Your task to perform on an android device: Toggle the flashlight Image 0: 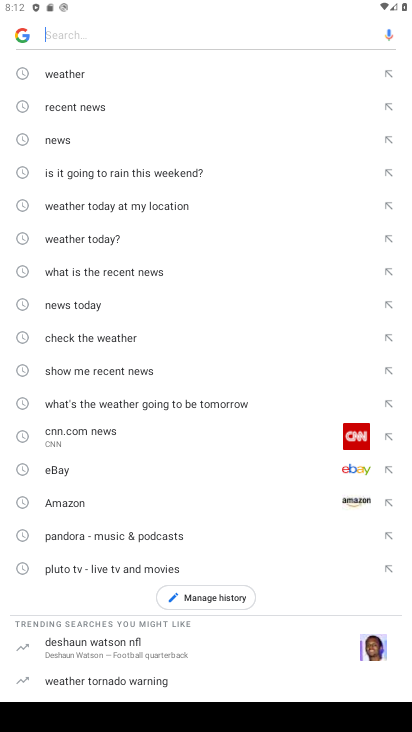
Step 0: press home button
Your task to perform on an android device: Toggle the flashlight Image 1: 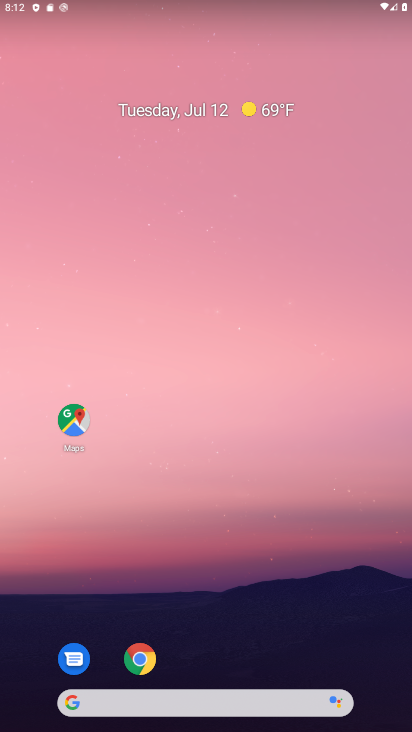
Step 1: drag from (185, 643) to (185, 300)
Your task to perform on an android device: Toggle the flashlight Image 2: 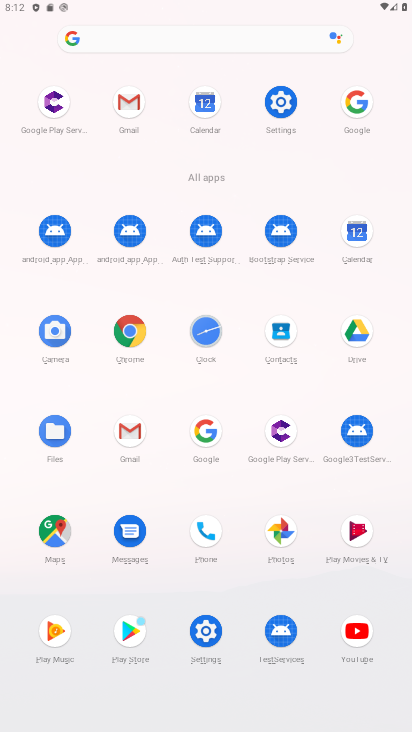
Step 2: click (278, 115)
Your task to perform on an android device: Toggle the flashlight Image 3: 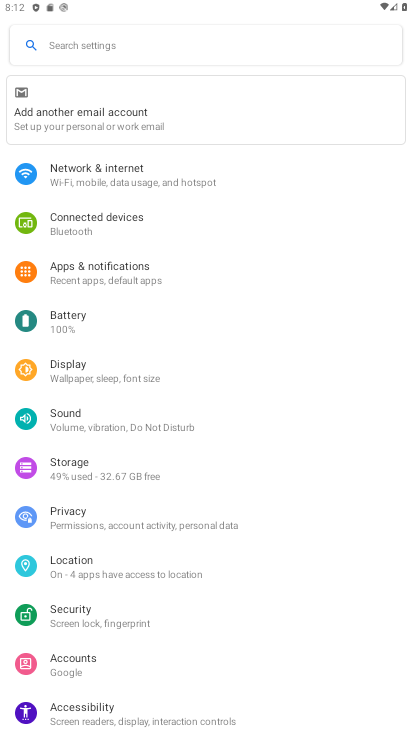
Step 3: task complete